Your task to perform on an android device: Search for the best rated circular saw on Lowes.com Image 0: 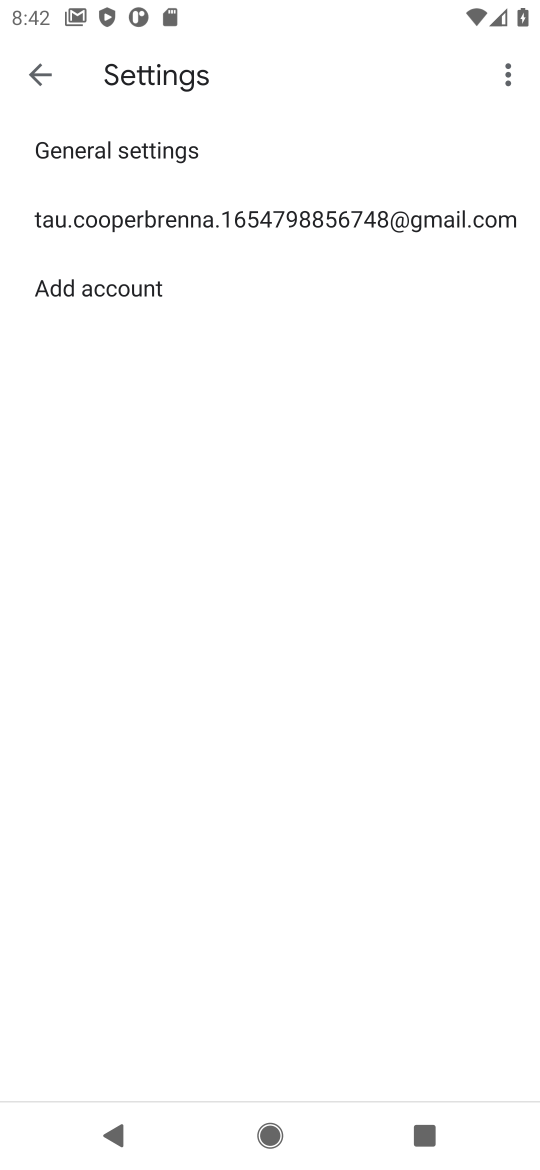
Step 0: press home button
Your task to perform on an android device: Search for the best rated circular saw on Lowes.com Image 1: 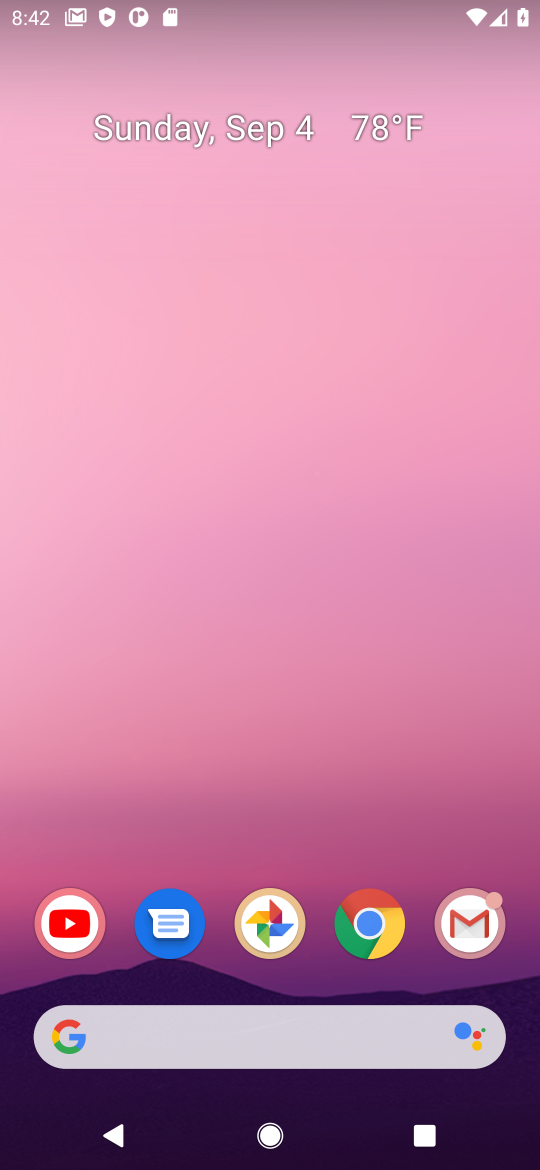
Step 1: click (133, 1045)
Your task to perform on an android device: Search for the best rated circular saw on Lowes.com Image 2: 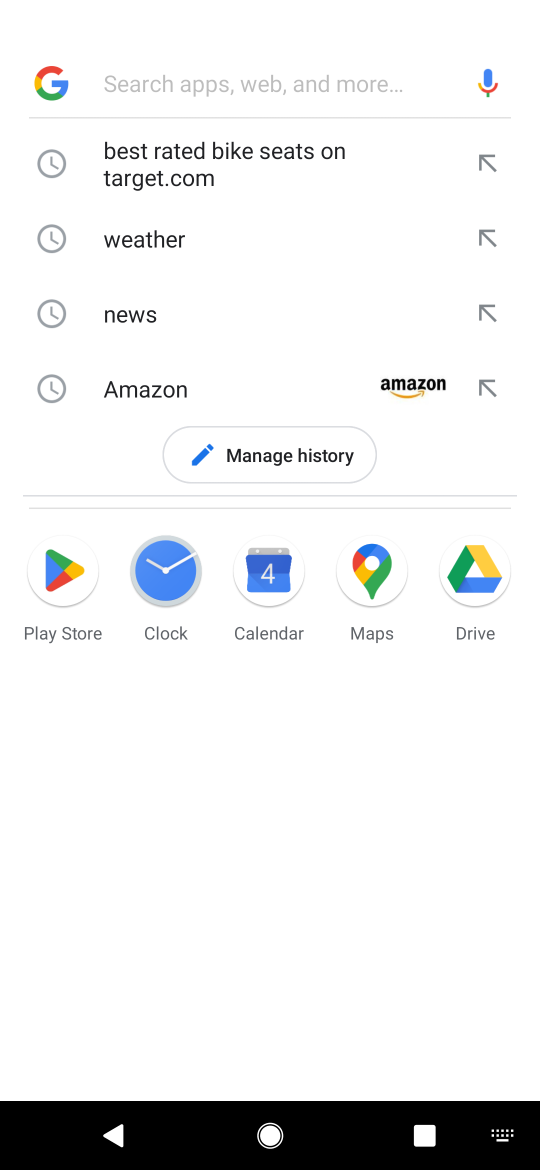
Step 2: type "the best rated circular saw on Lowes.com"
Your task to perform on an android device: Search for the best rated circular saw on Lowes.com Image 3: 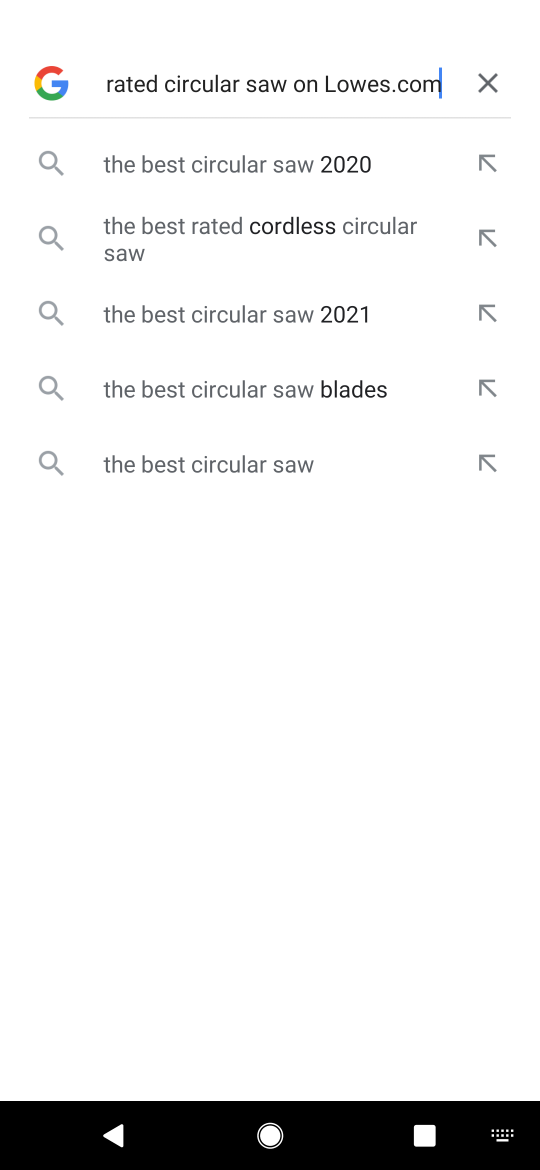
Step 3: type ""
Your task to perform on an android device: Search for the best rated circular saw on Lowes.com Image 4: 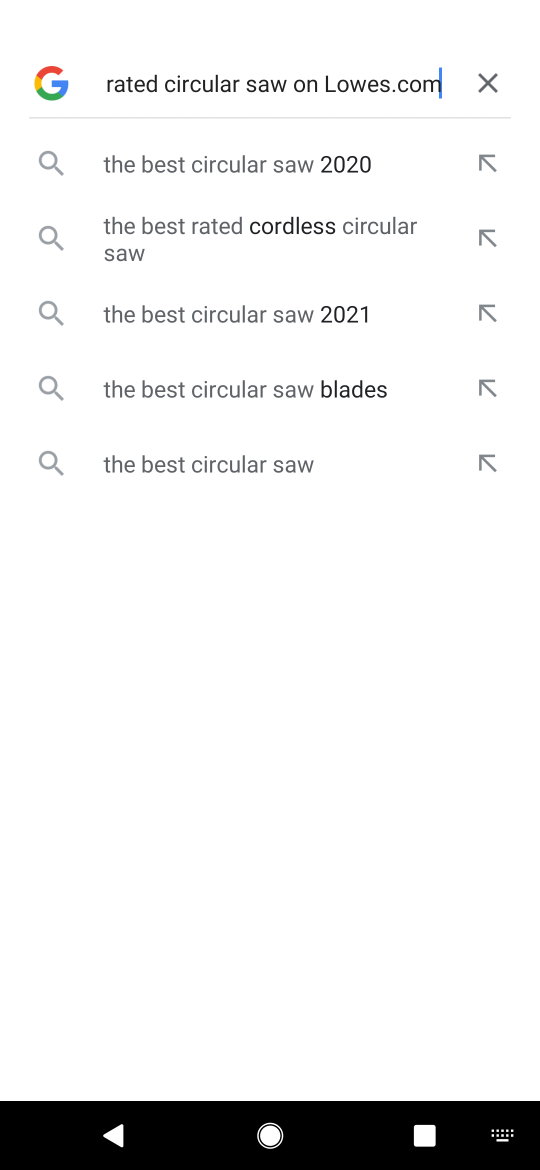
Step 4: type ""
Your task to perform on an android device: Search for the best rated circular saw on Lowes.com Image 5: 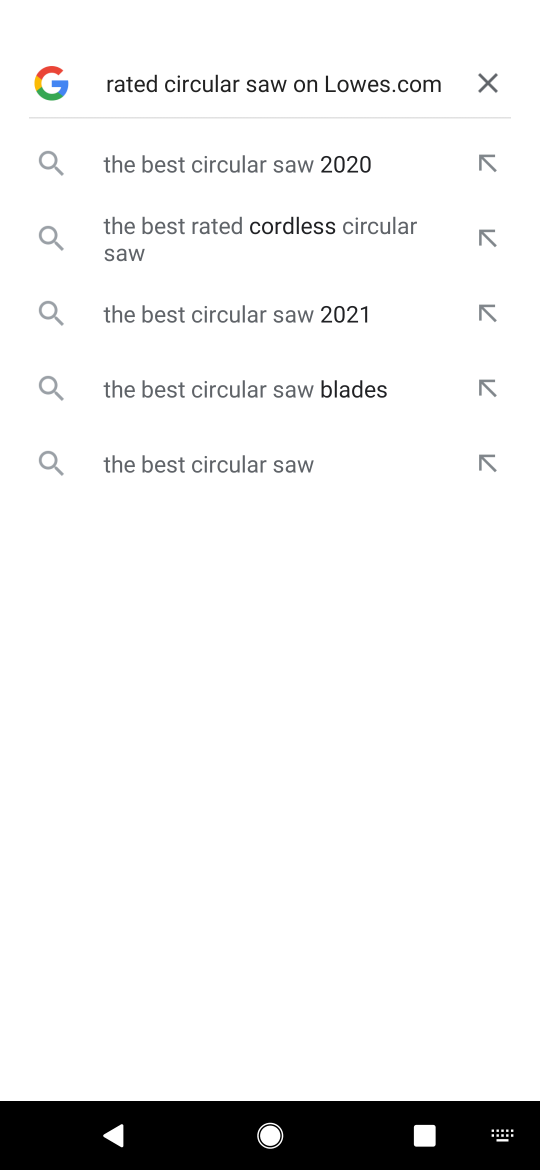
Step 5: type ""
Your task to perform on an android device: Search for the best rated circular saw on Lowes.com Image 6: 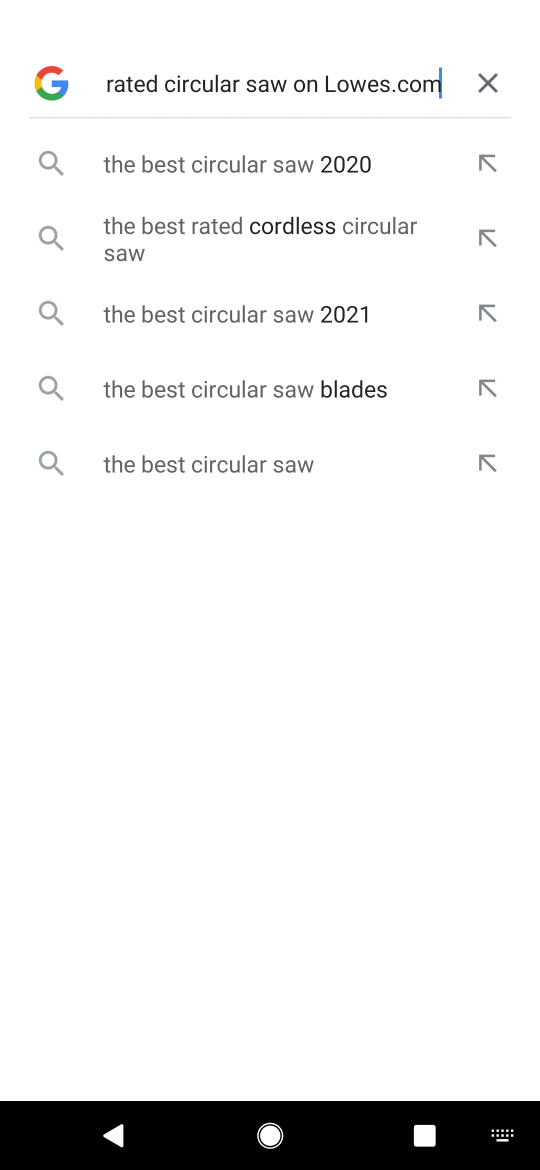
Step 6: type ""
Your task to perform on an android device: Search for the best rated circular saw on Lowes.com Image 7: 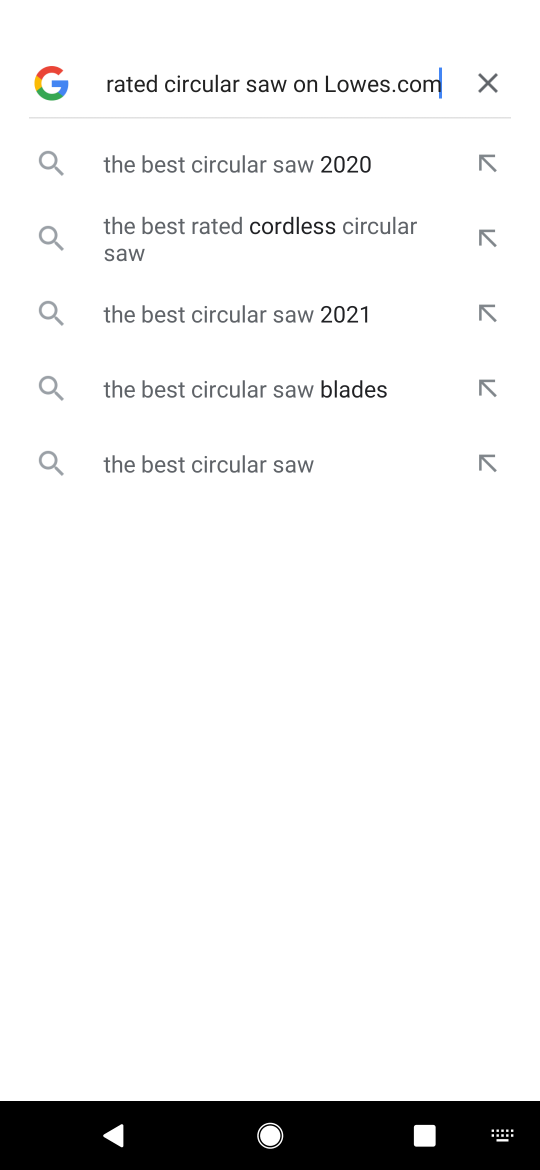
Step 7: task complete